Your task to perform on an android device: turn pop-ups on in chrome Image 0: 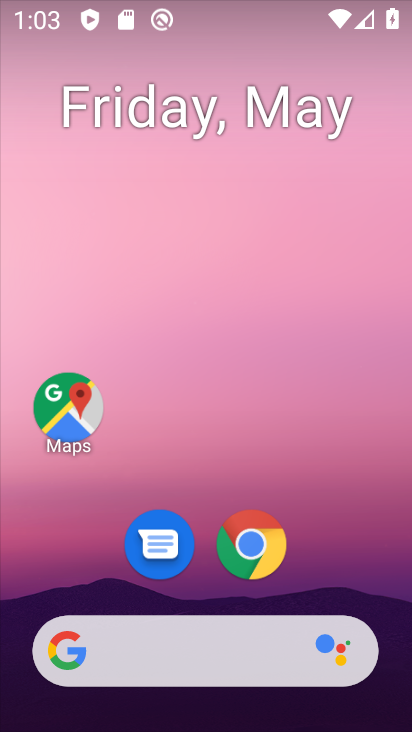
Step 0: press home button
Your task to perform on an android device: turn pop-ups on in chrome Image 1: 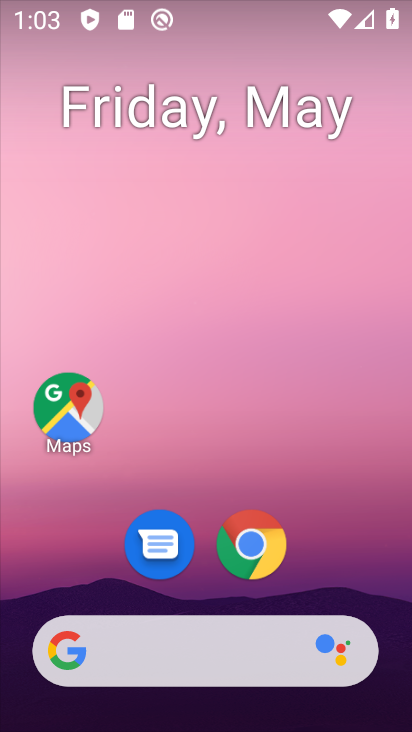
Step 1: click (245, 542)
Your task to perform on an android device: turn pop-ups on in chrome Image 2: 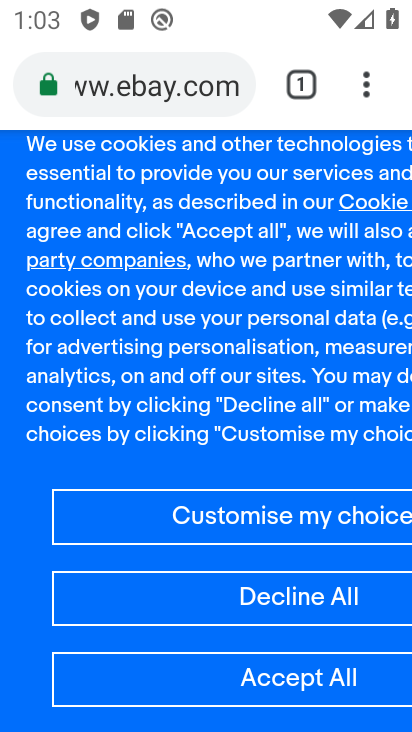
Step 2: click (365, 88)
Your task to perform on an android device: turn pop-ups on in chrome Image 3: 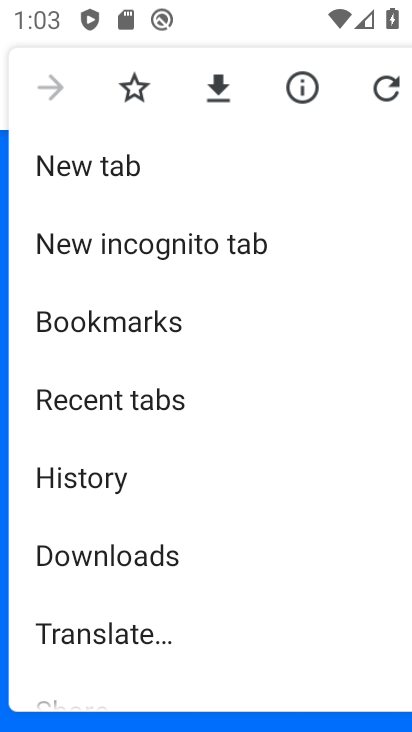
Step 3: drag from (146, 620) to (203, 260)
Your task to perform on an android device: turn pop-ups on in chrome Image 4: 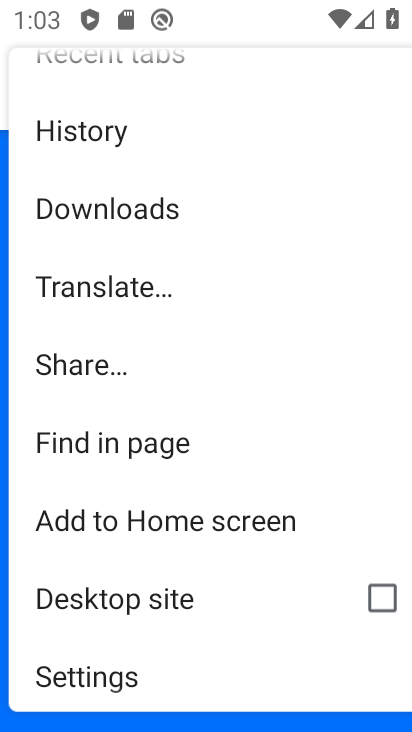
Step 4: click (83, 676)
Your task to perform on an android device: turn pop-ups on in chrome Image 5: 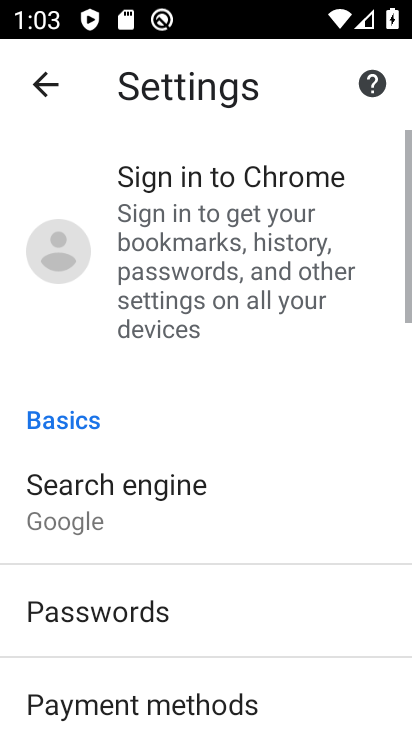
Step 5: drag from (31, 646) to (168, 296)
Your task to perform on an android device: turn pop-ups on in chrome Image 6: 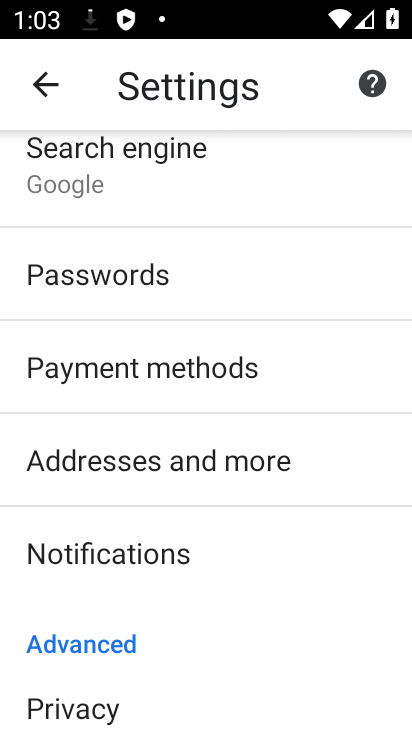
Step 6: drag from (109, 662) to (200, 385)
Your task to perform on an android device: turn pop-ups on in chrome Image 7: 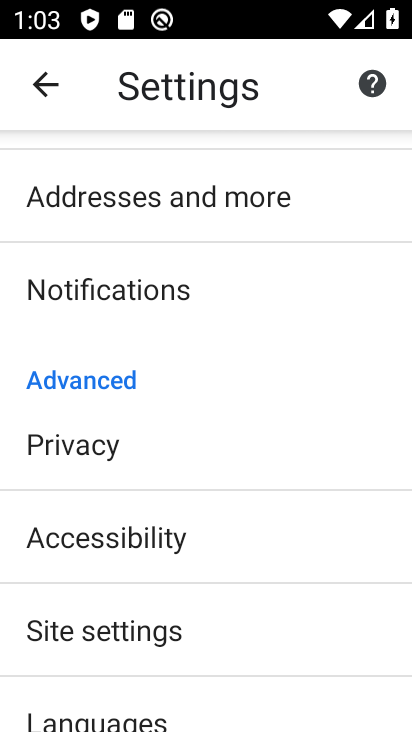
Step 7: click (83, 621)
Your task to perform on an android device: turn pop-ups on in chrome Image 8: 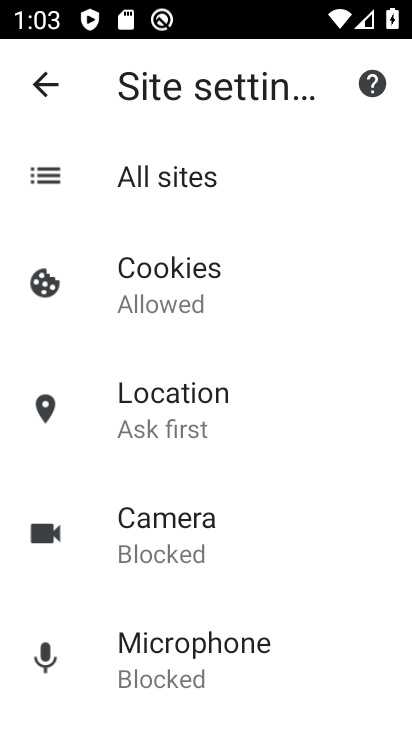
Step 8: drag from (159, 643) to (273, 259)
Your task to perform on an android device: turn pop-ups on in chrome Image 9: 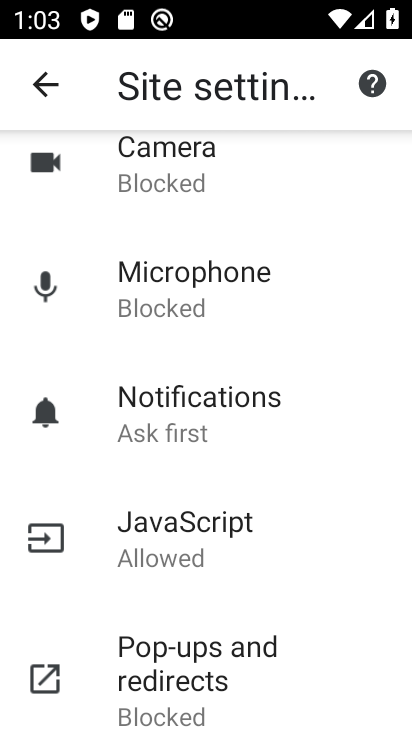
Step 9: click (186, 651)
Your task to perform on an android device: turn pop-ups on in chrome Image 10: 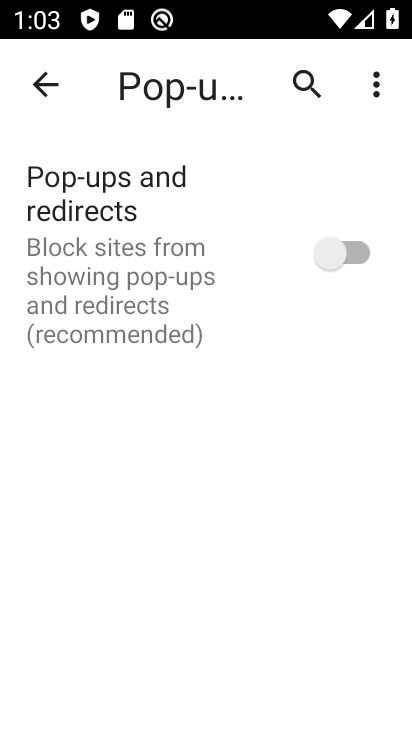
Step 10: click (327, 266)
Your task to perform on an android device: turn pop-ups on in chrome Image 11: 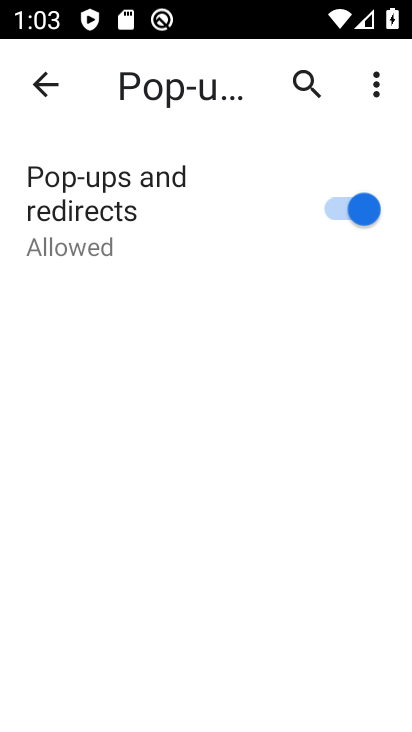
Step 11: task complete